Your task to perform on an android device: Find the nearest electronics store that's open Image 0: 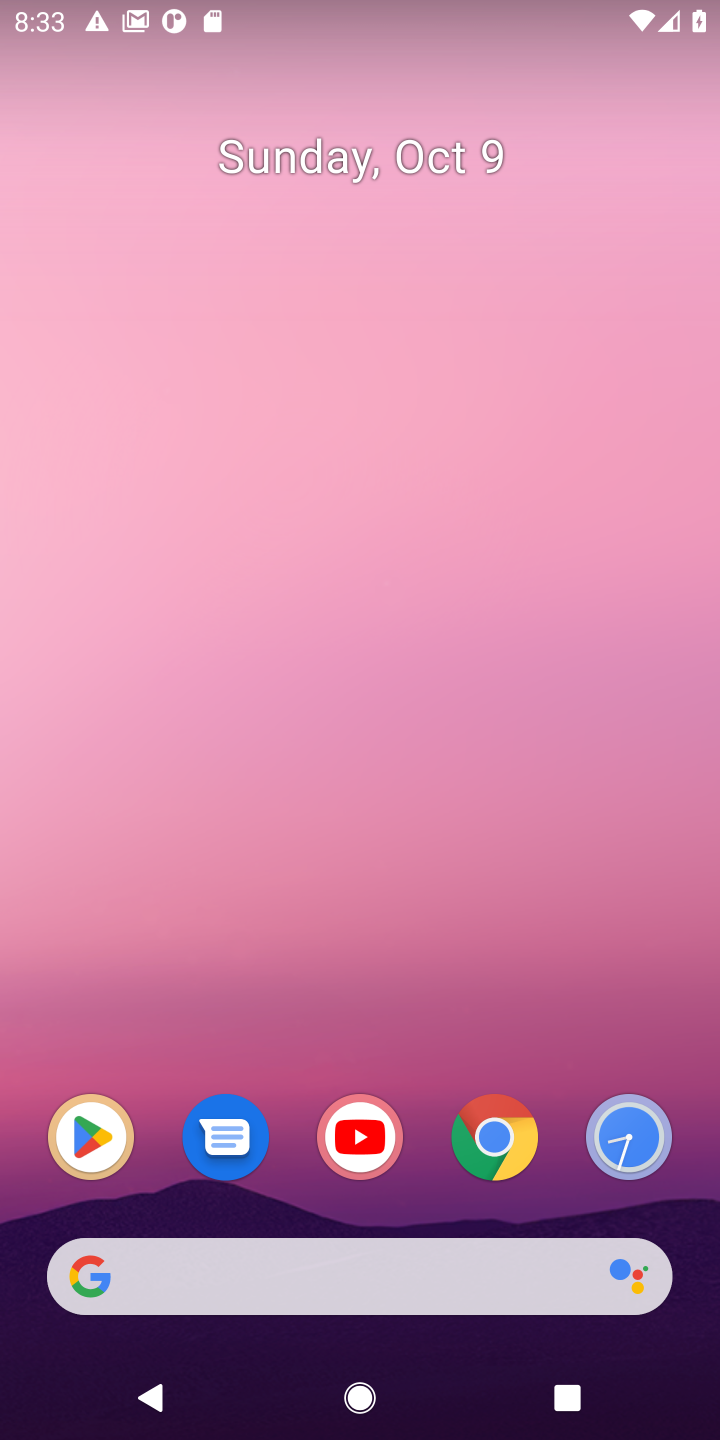
Step 0: drag from (550, 974) to (648, 108)
Your task to perform on an android device: Find the nearest electronics store that's open Image 1: 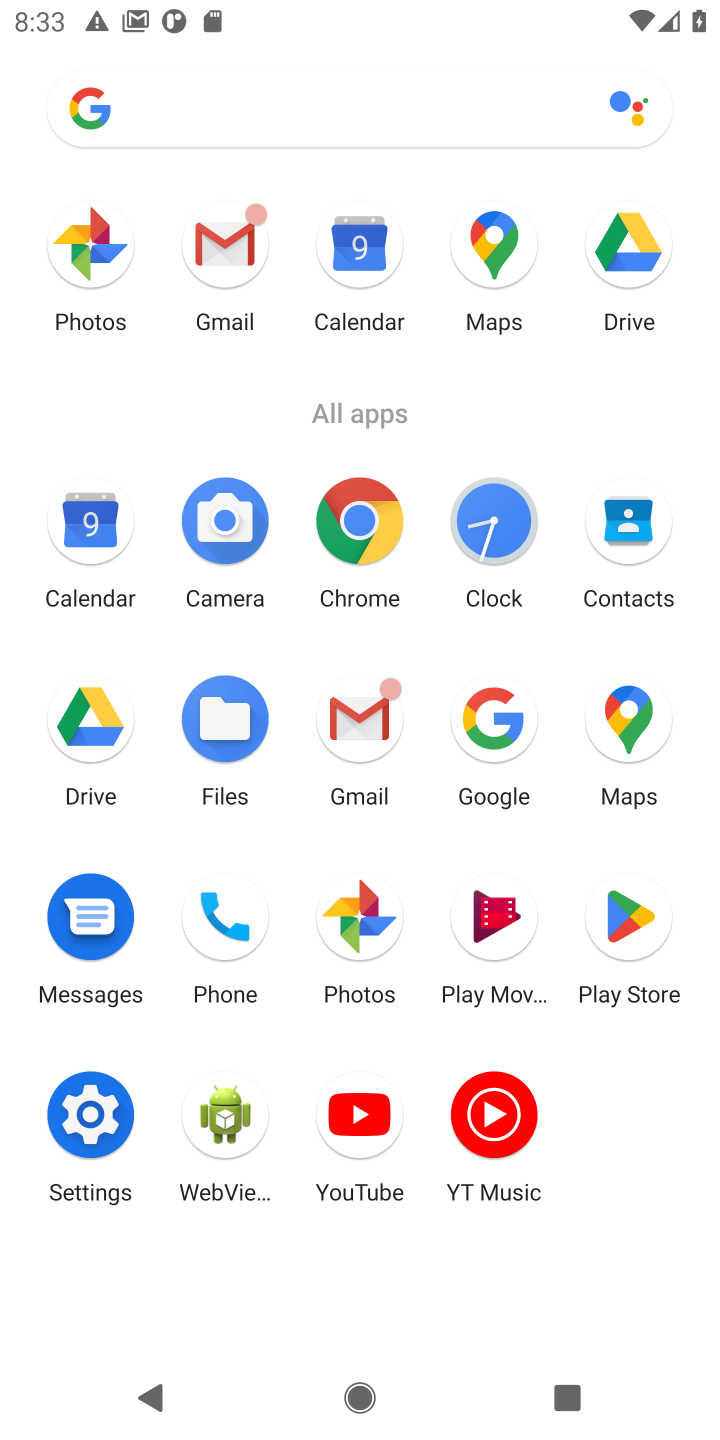
Step 1: click (348, 528)
Your task to perform on an android device: Find the nearest electronics store that's open Image 2: 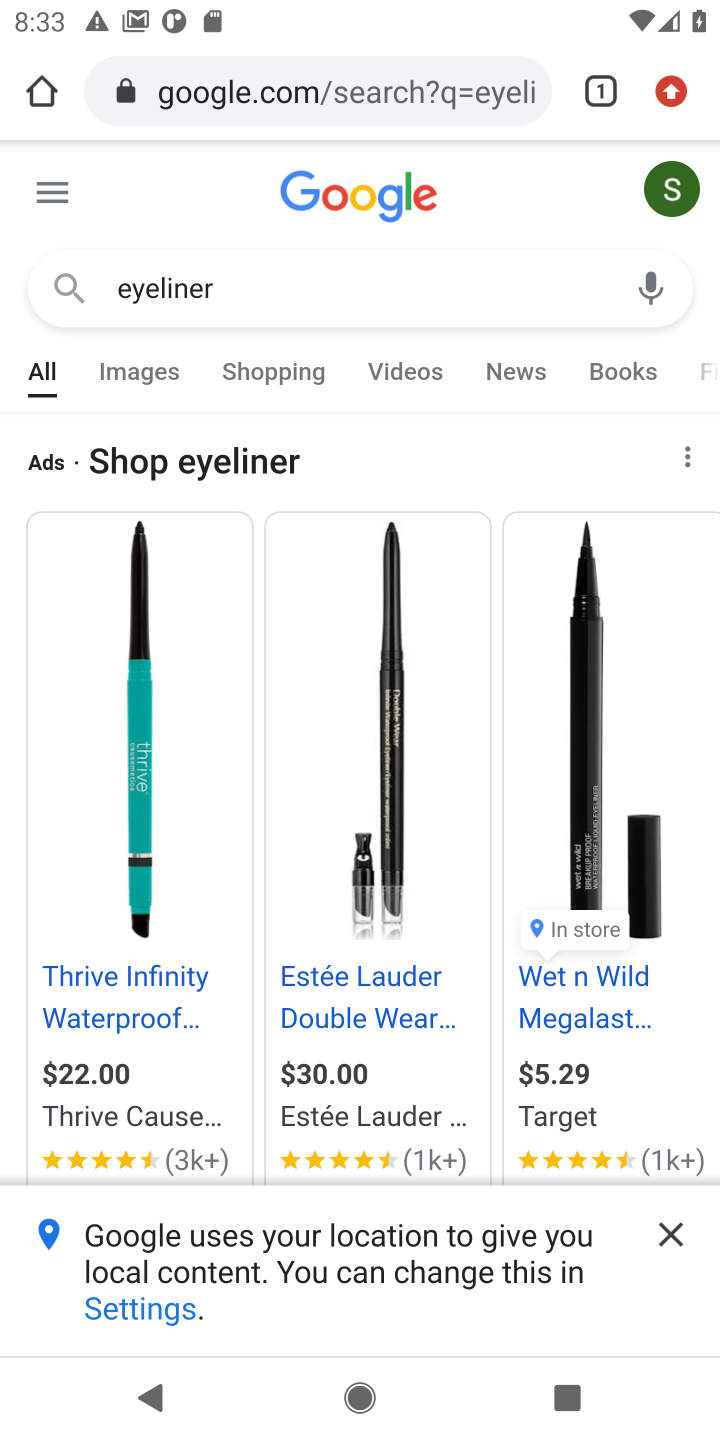
Step 2: click (319, 78)
Your task to perform on an android device: Find the nearest electronics store that's open Image 3: 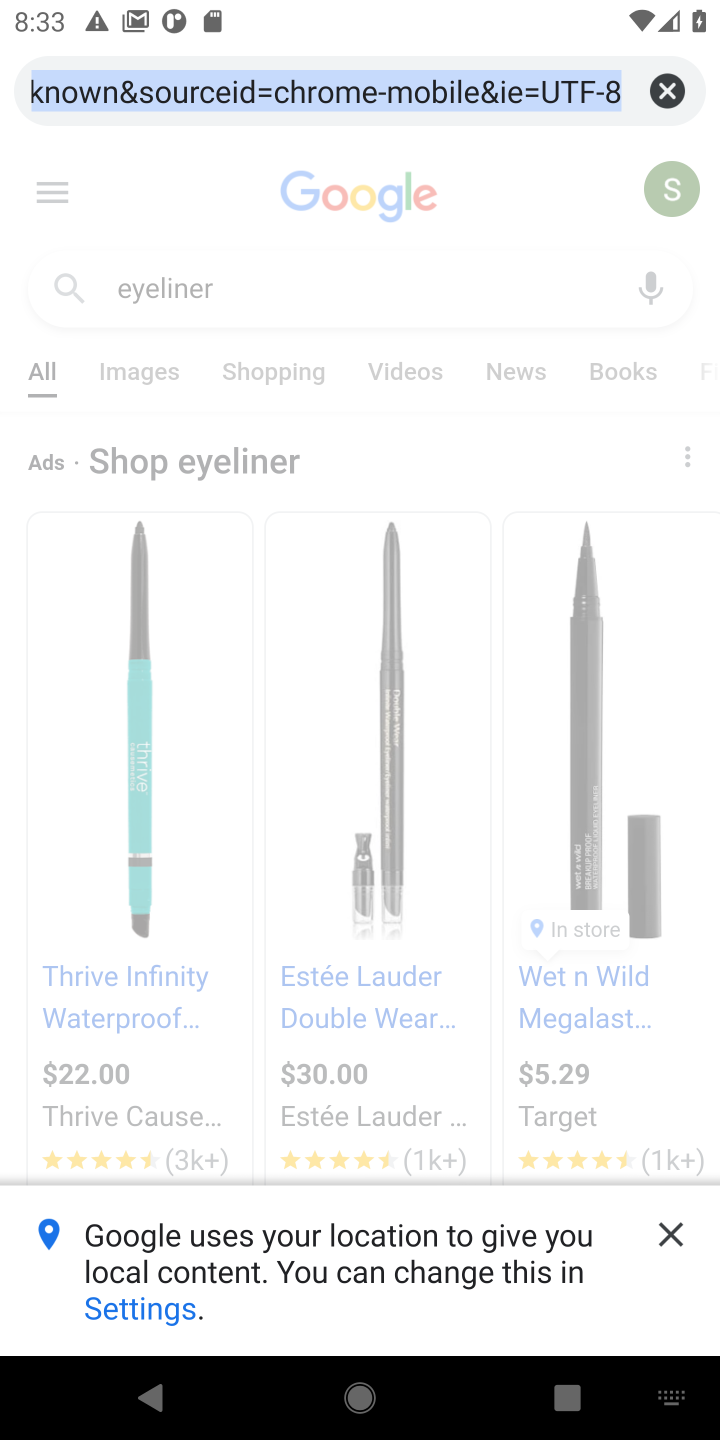
Step 3: click (663, 95)
Your task to perform on an android device: Find the nearest electronics store that's open Image 4: 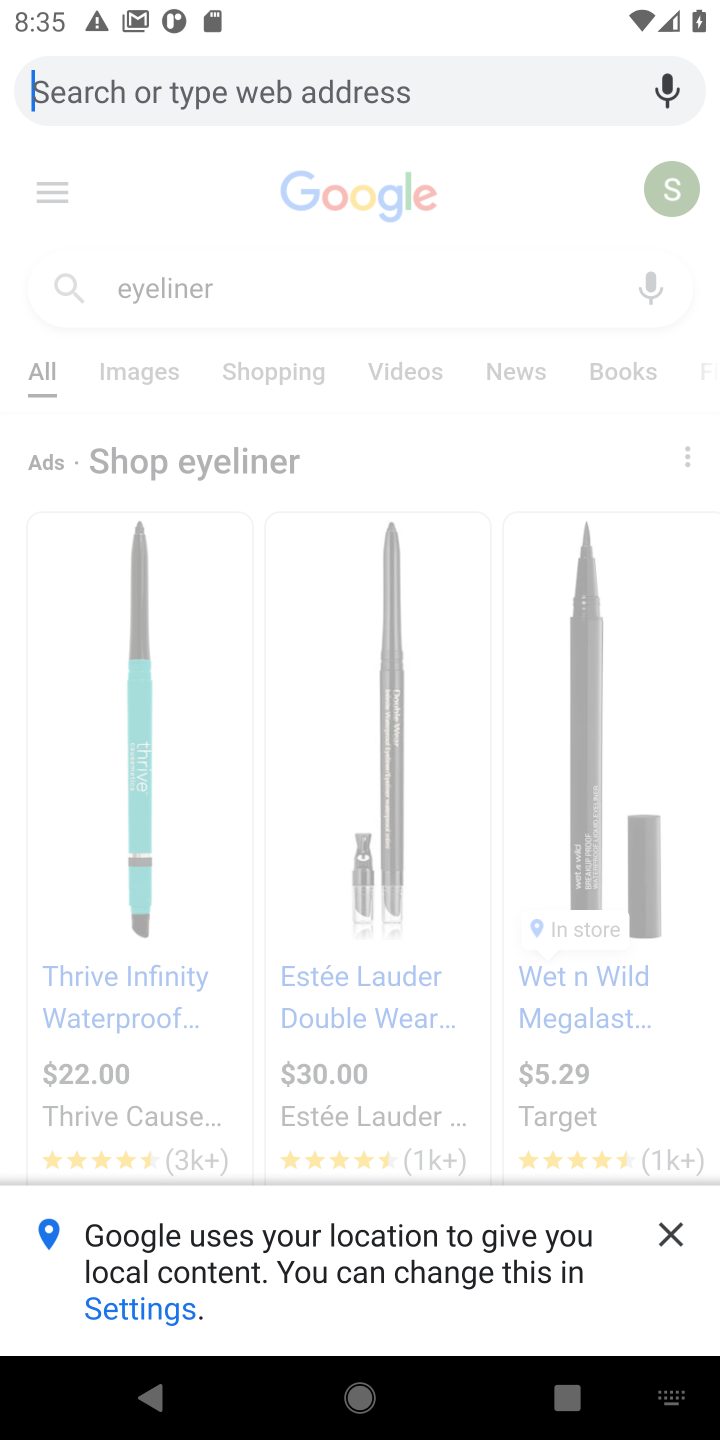
Step 4: type "nearest electronics store that's open"
Your task to perform on an android device: Find the nearest electronics store that's open Image 5: 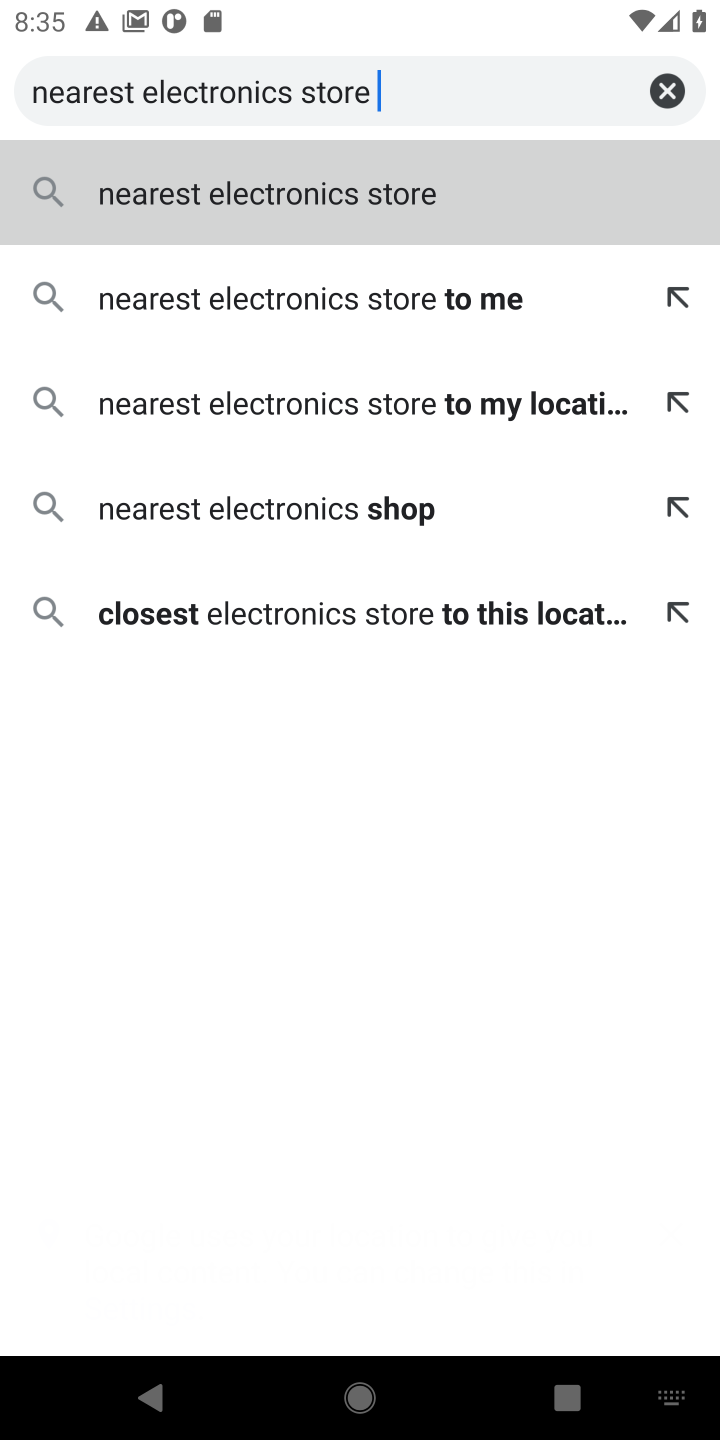
Step 5: click (353, 199)
Your task to perform on an android device: Find the nearest electronics store that's open Image 6: 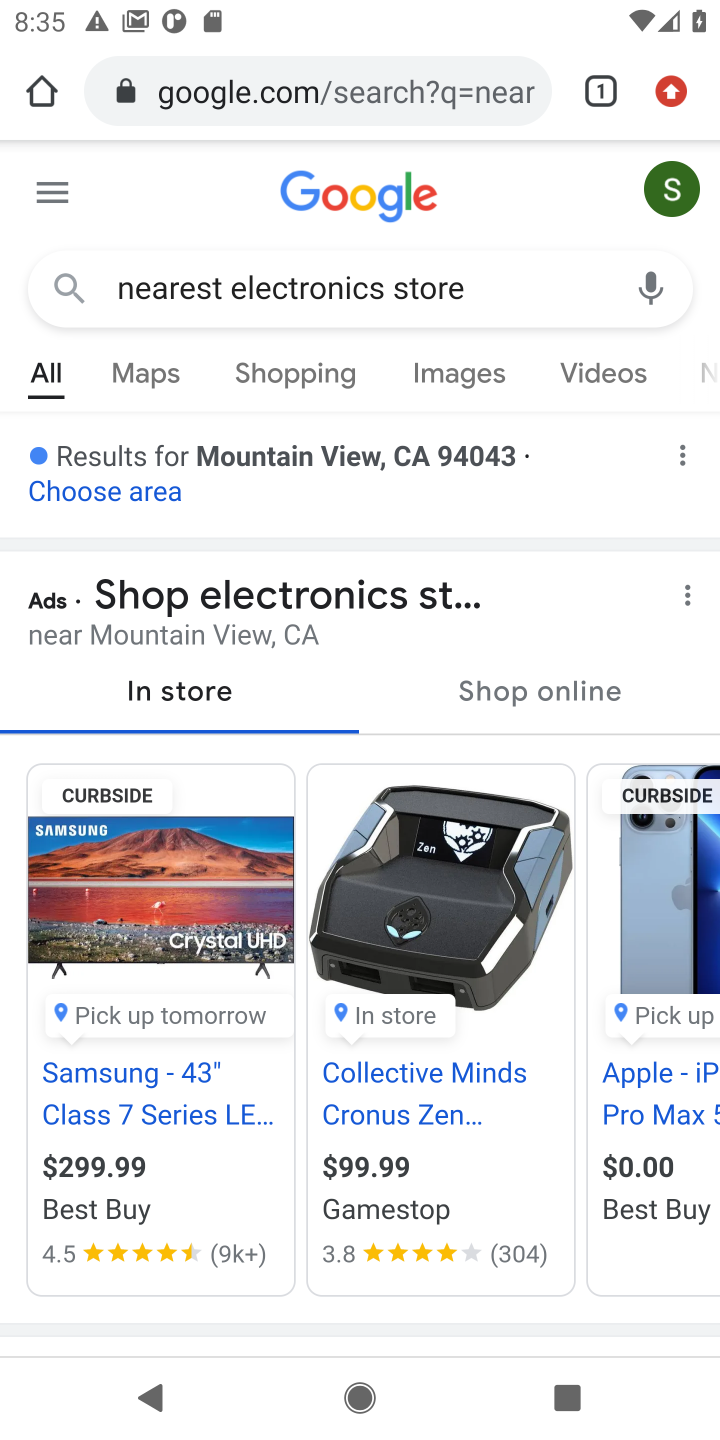
Step 6: task complete